Your task to perform on an android device: Search for "bose soundsport free" on costco, select the first entry, and add it to the cart. Image 0: 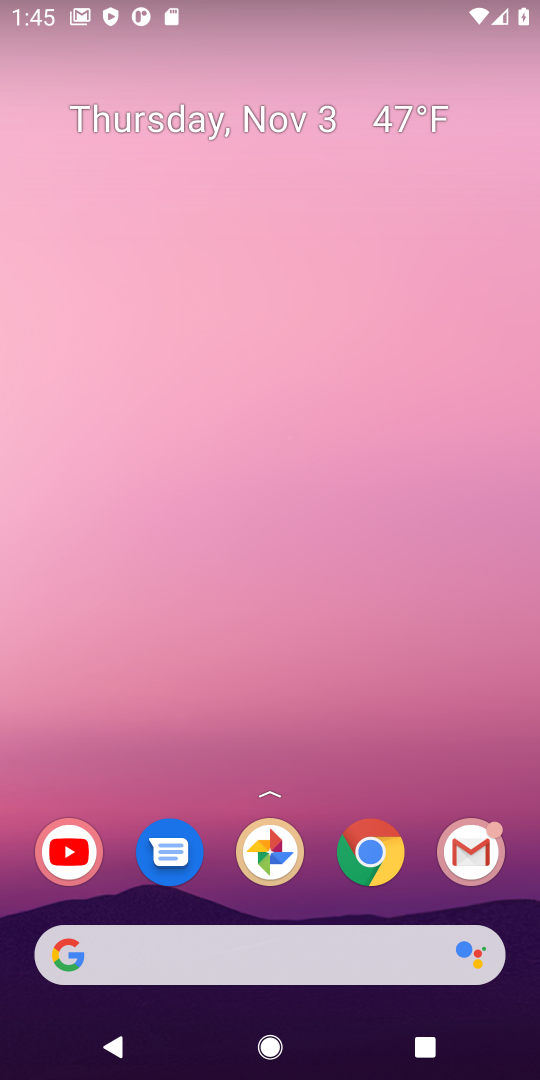
Step 0: click (374, 870)
Your task to perform on an android device: Search for "bose soundsport free" on costco, select the first entry, and add it to the cart. Image 1: 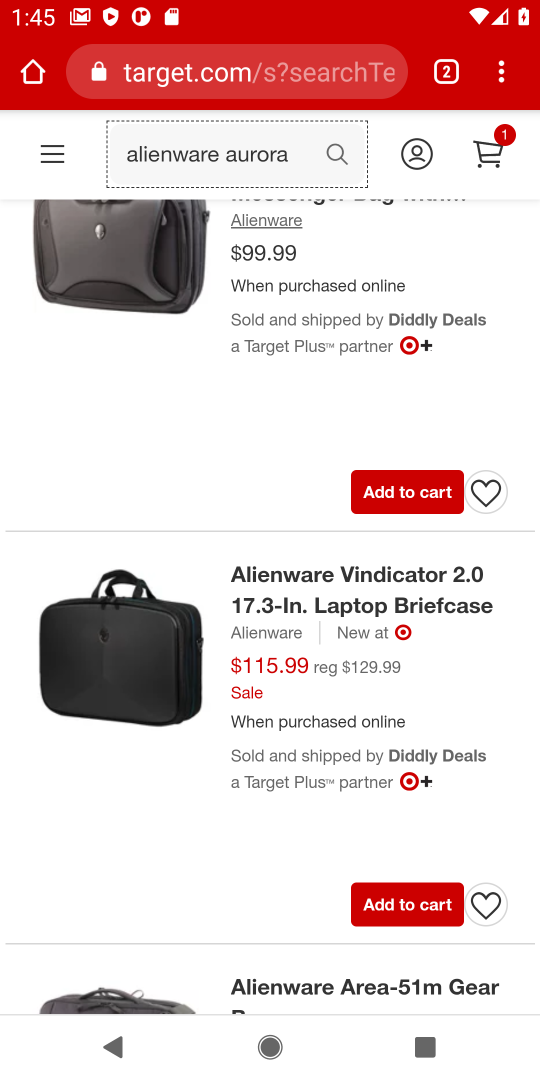
Step 1: click (186, 71)
Your task to perform on an android device: Search for "bose soundsport free" on costco, select the first entry, and add it to the cart. Image 2: 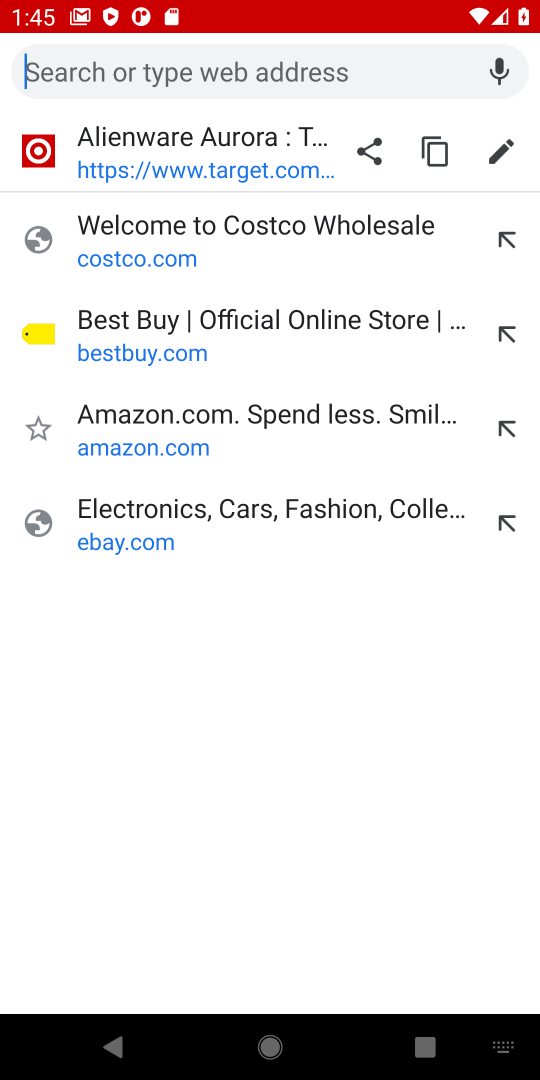
Step 2: type "costco.com"
Your task to perform on an android device: Search for "bose soundsport free" on costco, select the first entry, and add it to the cart. Image 3: 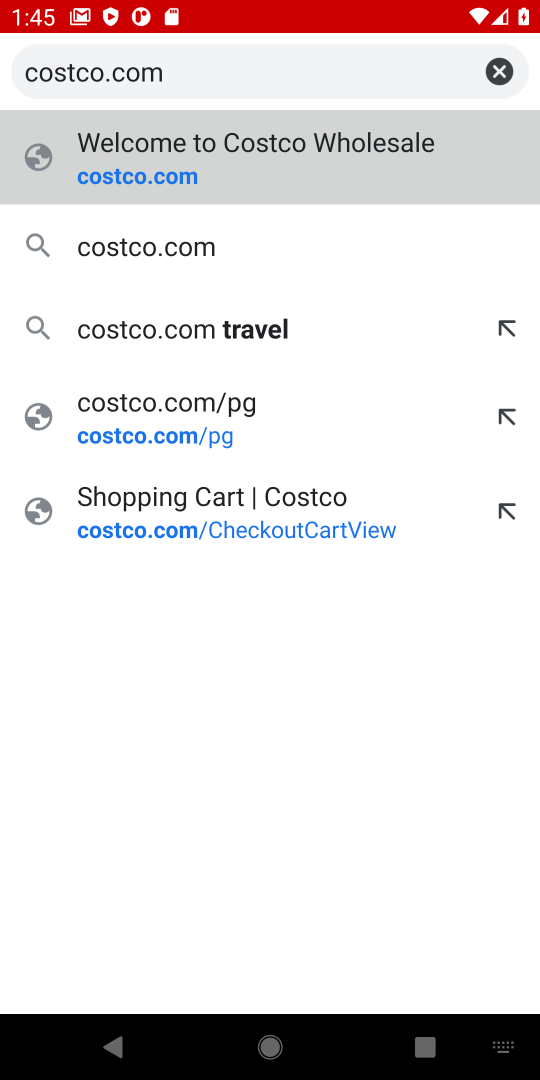
Step 3: click (129, 185)
Your task to perform on an android device: Search for "bose soundsport free" on costco, select the first entry, and add it to the cart. Image 4: 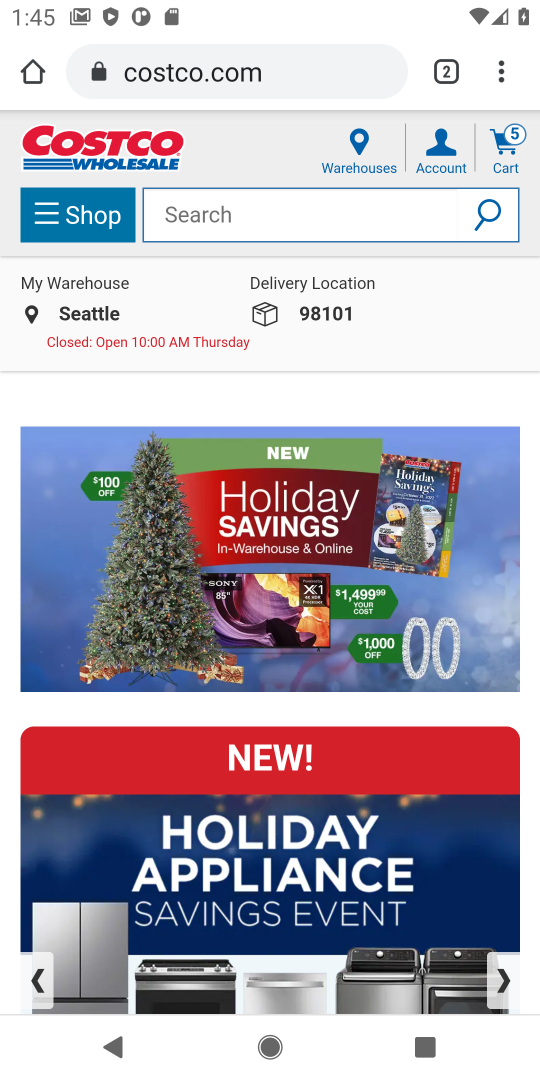
Step 4: click (207, 219)
Your task to perform on an android device: Search for "bose soundsport free" on costco, select the first entry, and add it to the cart. Image 5: 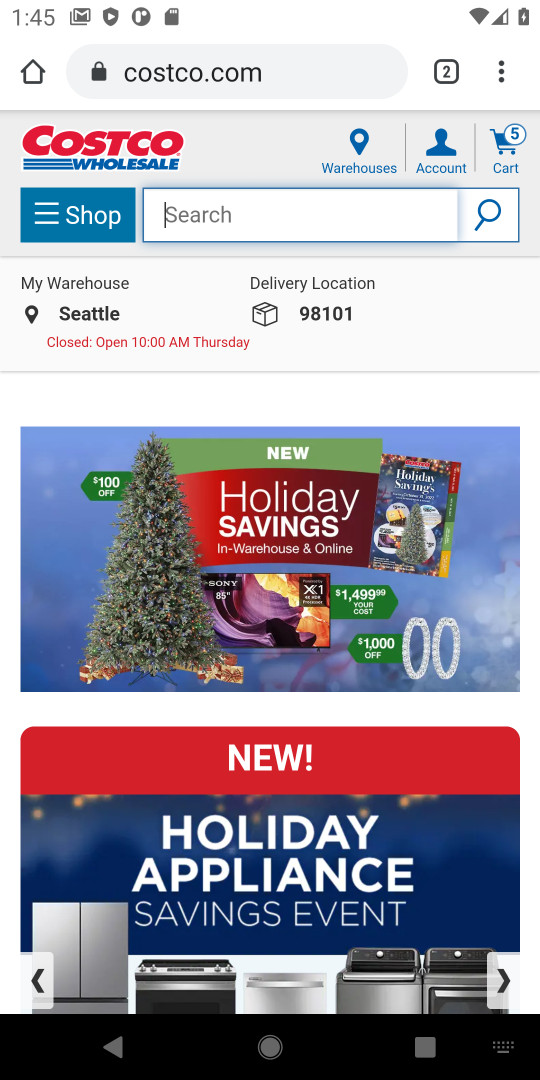
Step 5: type "bose soundsport free"
Your task to perform on an android device: Search for "bose soundsport free" on costco, select the first entry, and add it to the cart. Image 6: 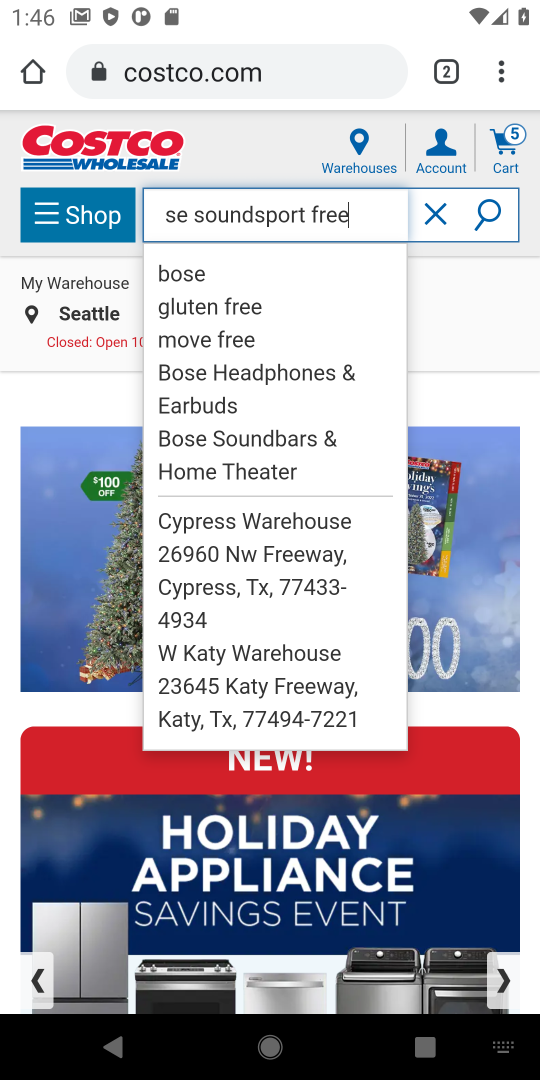
Step 6: click (491, 198)
Your task to perform on an android device: Search for "bose soundsport free" on costco, select the first entry, and add it to the cart. Image 7: 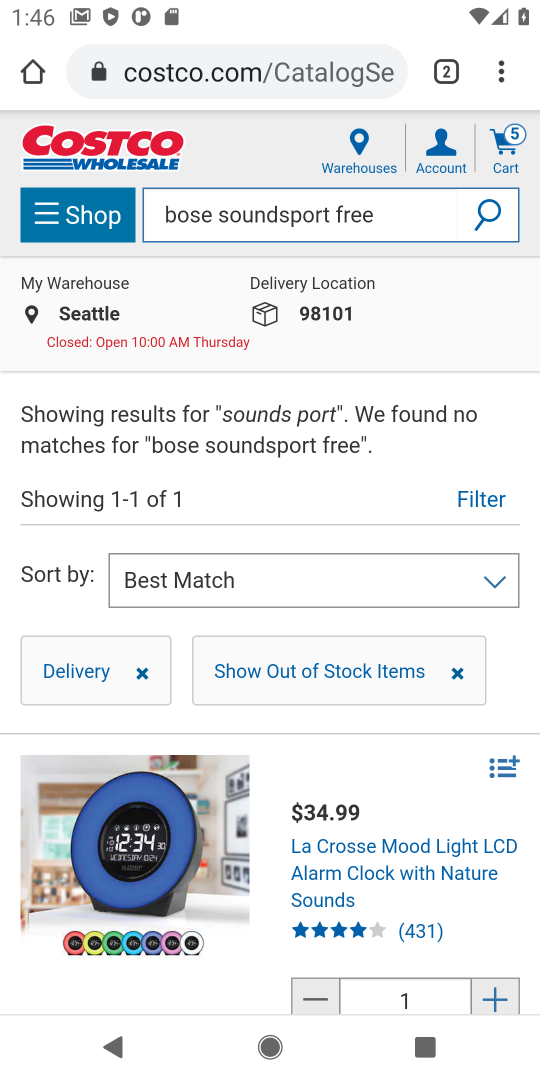
Step 7: task complete